Your task to perform on an android device: change timer sound Image 0: 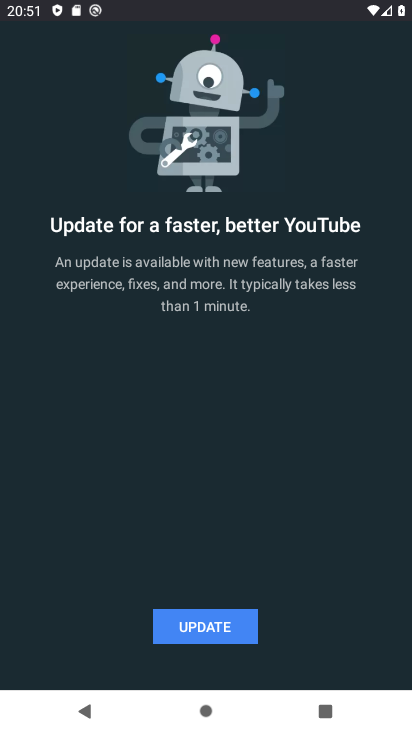
Step 0: press home button
Your task to perform on an android device: change timer sound Image 1: 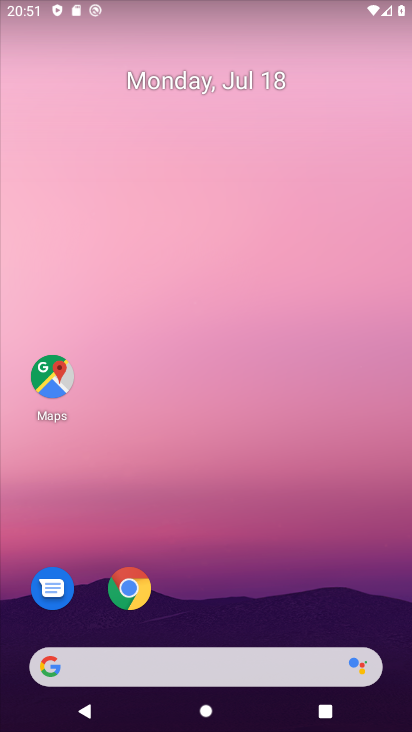
Step 1: drag from (199, 666) to (302, 102)
Your task to perform on an android device: change timer sound Image 2: 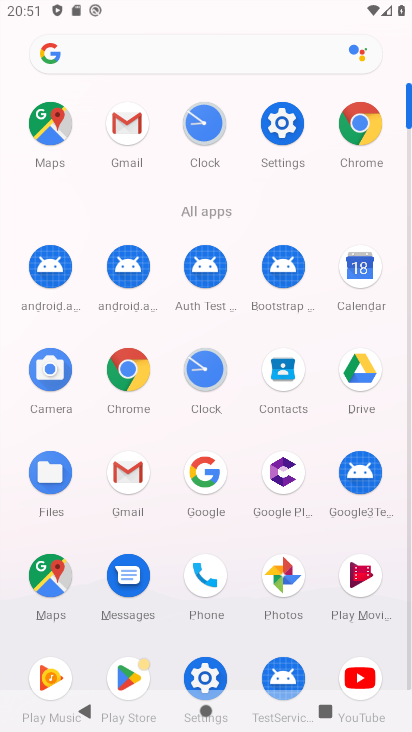
Step 2: click (206, 372)
Your task to perform on an android device: change timer sound Image 3: 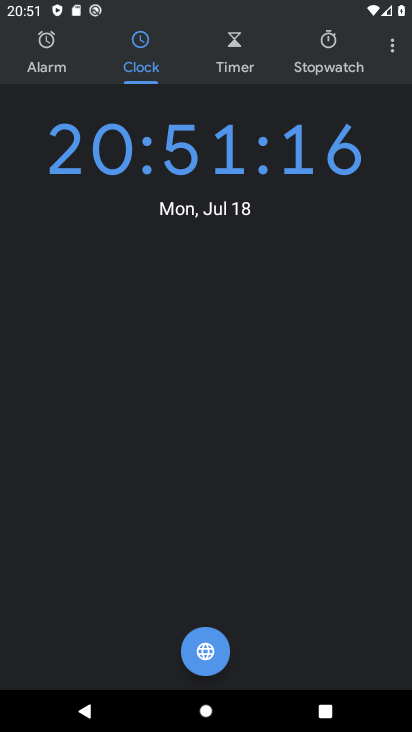
Step 3: click (395, 48)
Your task to perform on an android device: change timer sound Image 4: 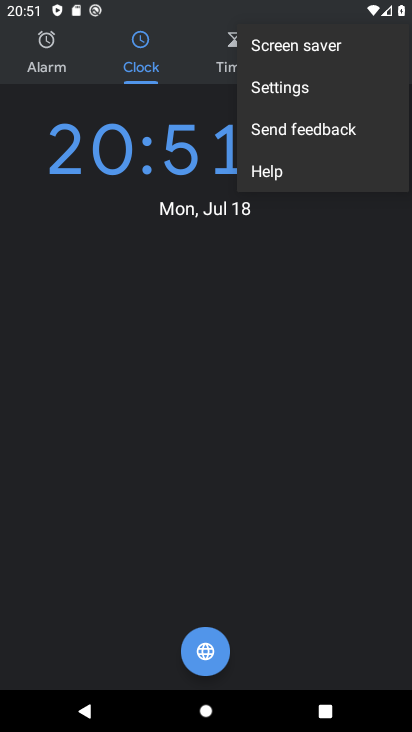
Step 4: click (293, 91)
Your task to perform on an android device: change timer sound Image 5: 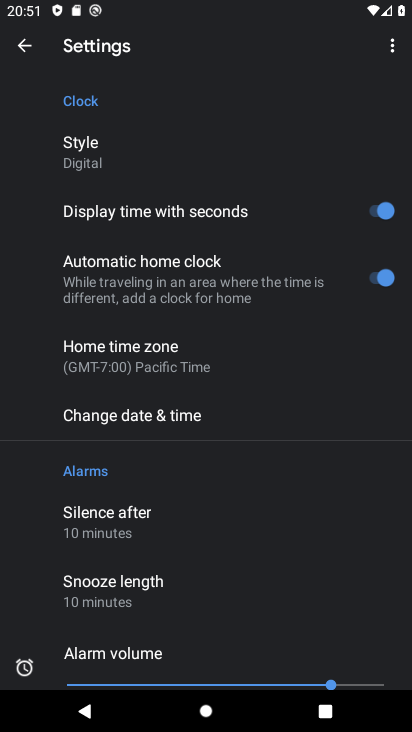
Step 5: drag from (298, 575) to (383, 121)
Your task to perform on an android device: change timer sound Image 6: 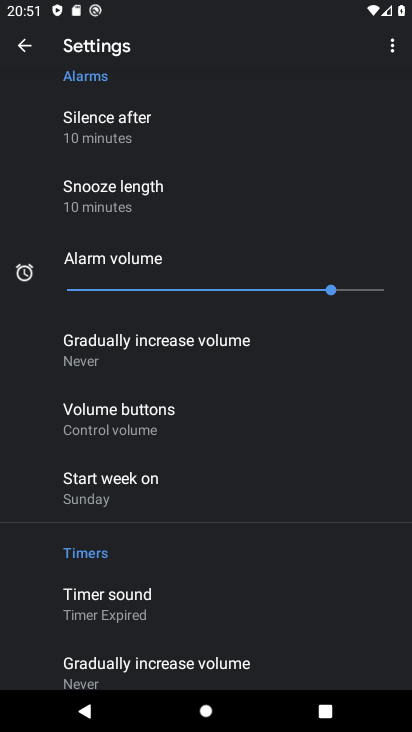
Step 6: click (114, 611)
Your task to perform on an android device: change timer sound Image 7: 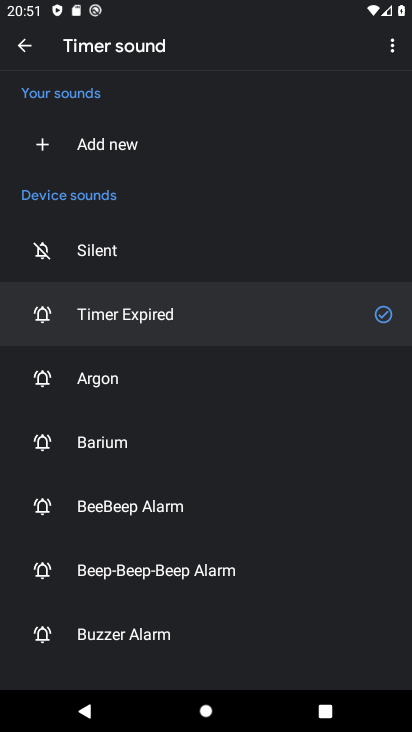
Step 7: click (103, 514)
Your task to perform on an android device: change timer sound Image 8: 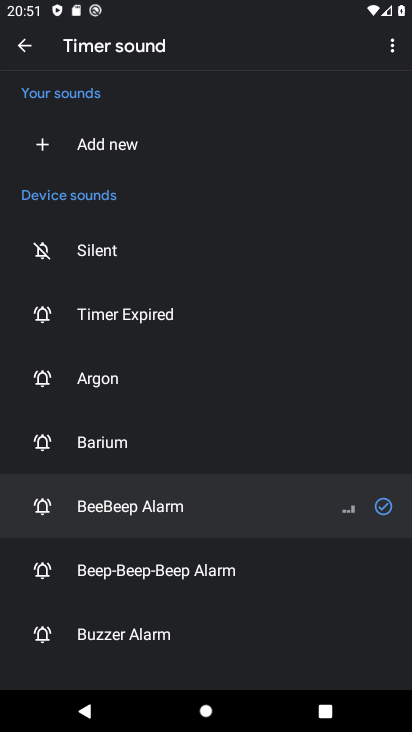
Step 8: task complete